Your task to perform on an android device: Turn on the flashlight Image 0: 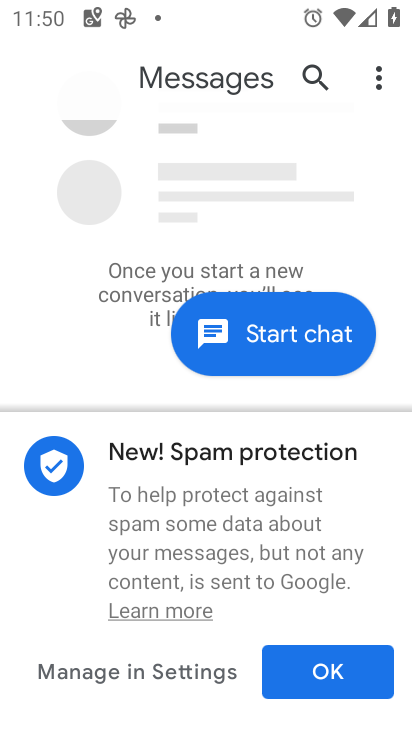
Step 0: press home button
Your task to perform on an android device: Turn on the flashlight Image 1: 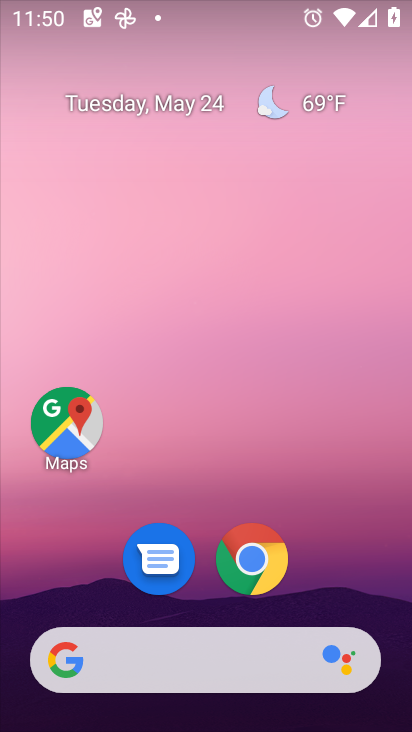
Step 1: drag from (389, 679) to (285, 25)
Your task to perform on an android device: Turn on the flashlight Image 2: 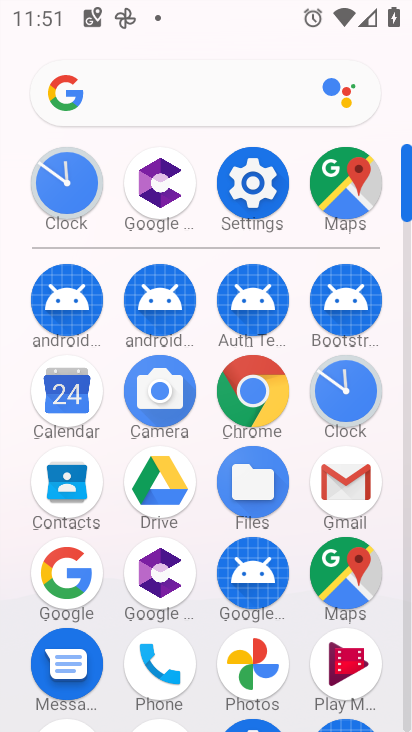
Step 2: click (244, 193)
Your task to perform on an android device: Turn on the flashlight Image 3: 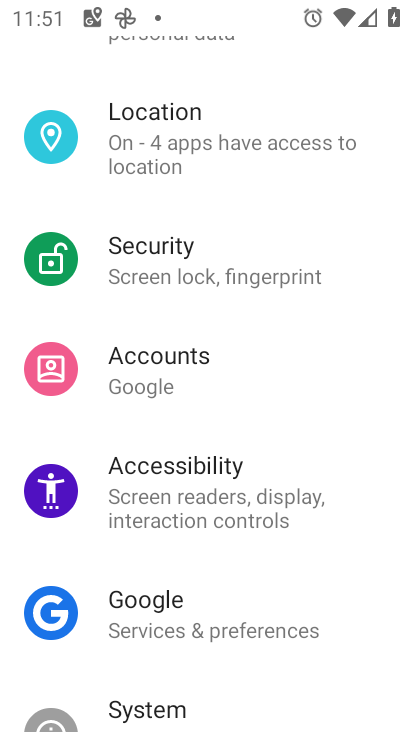
Step 3: task complete